Your task to perform on an android device: Add "macbook pro 15 inch" to the cart on target, then select checkout. Image 0: 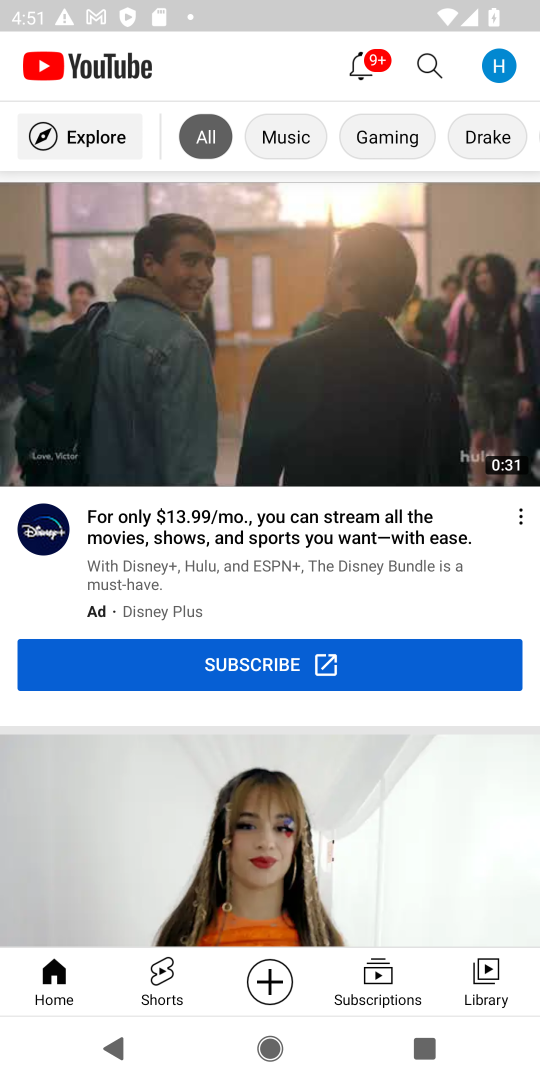
Step 0: press home button
Your task to perform on an android device: Add "macbook pro 15 inch" to the cart on target, then select checkout. Image 1: 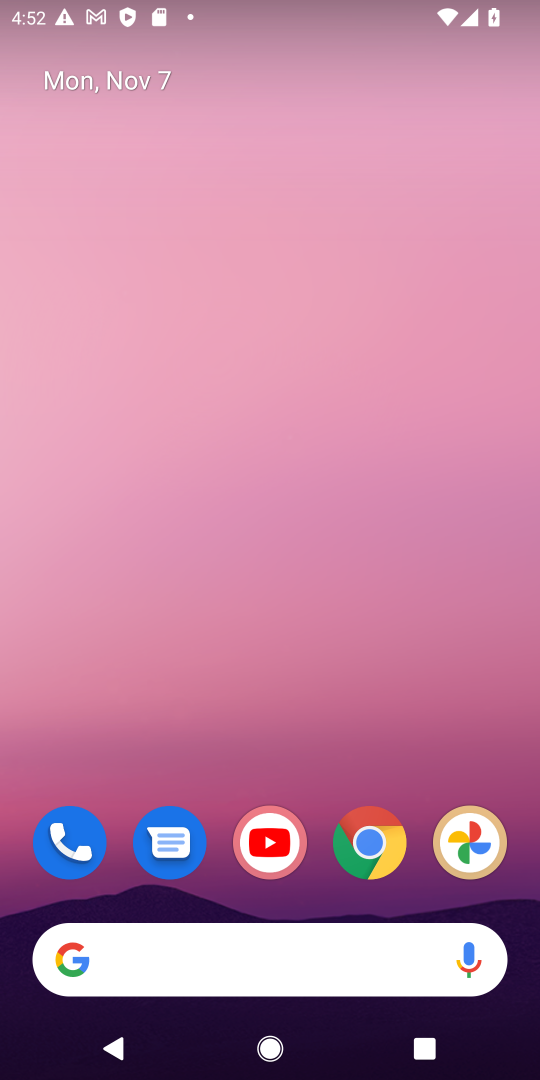
Step 1: drag from (124, 970) to (208, 246)
Your task to perform on an android device: Add "macbook pro 15 inch" to the cart on target, then select checkout. Image 2: 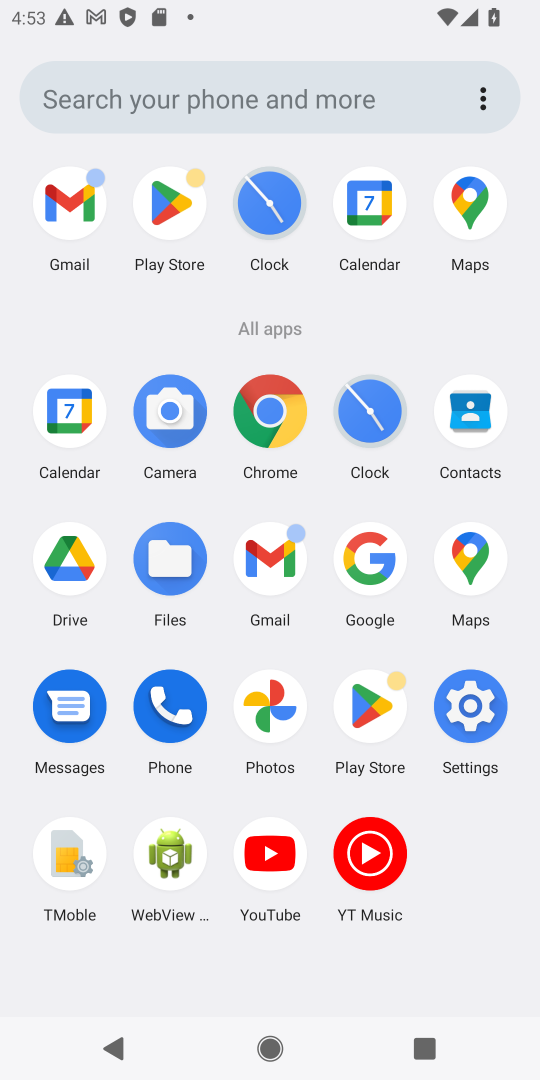
Step 2: click (281, 413)
Your task to perform on an android device: Add "macbook pro 15 inch" to the cart on target, then select checkout. Image 3: 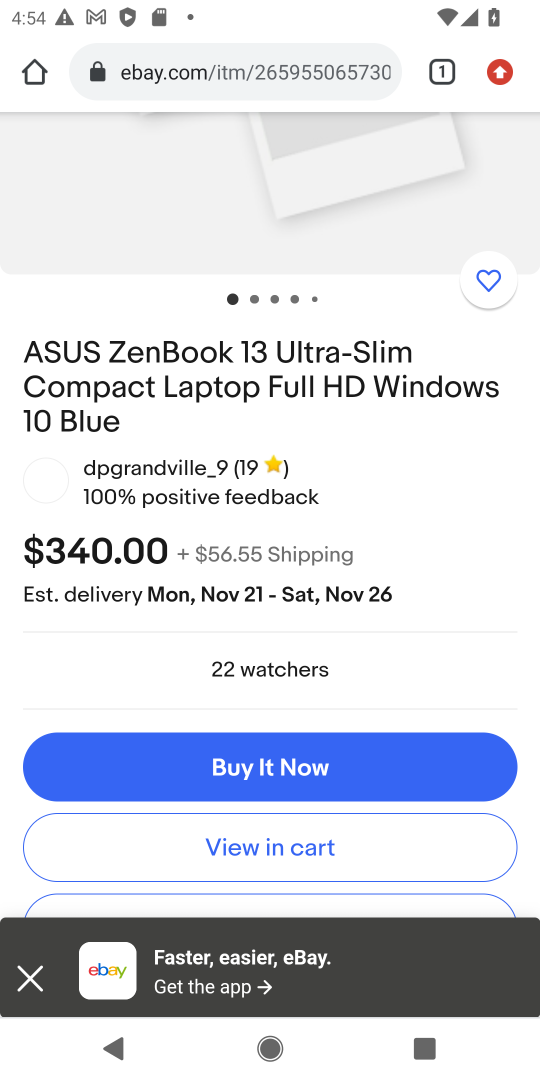
Step 3: click (298, 76)
Your task to perform on an android device: Add "macbook pro 15 inch" to the cart on target, then select checkout. Image 4: 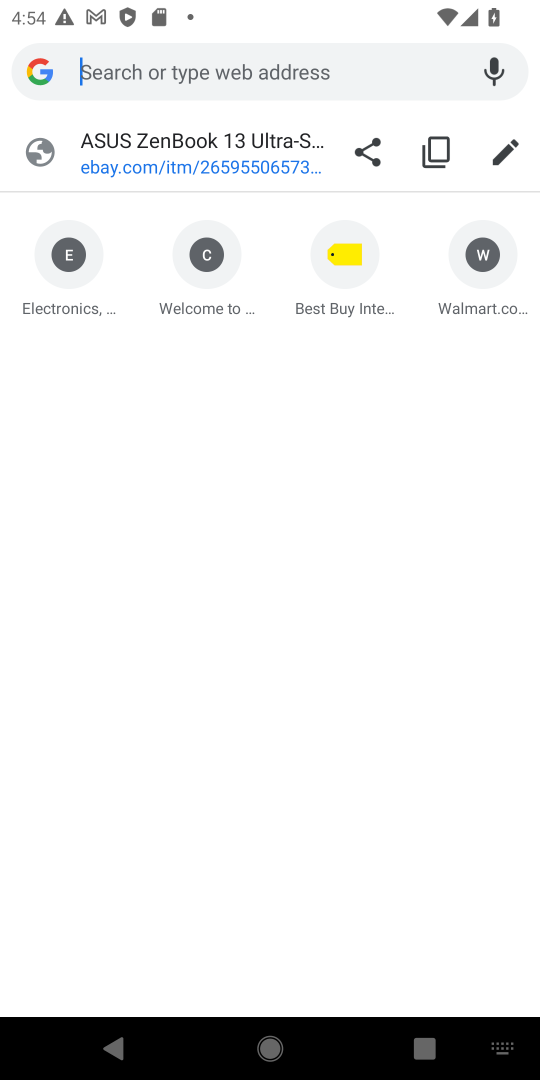
Step 4: type "target"
Your task to perform on an android device: Add "macbook pro 15 inch" to the cart on target, then select checkout. Image 5: 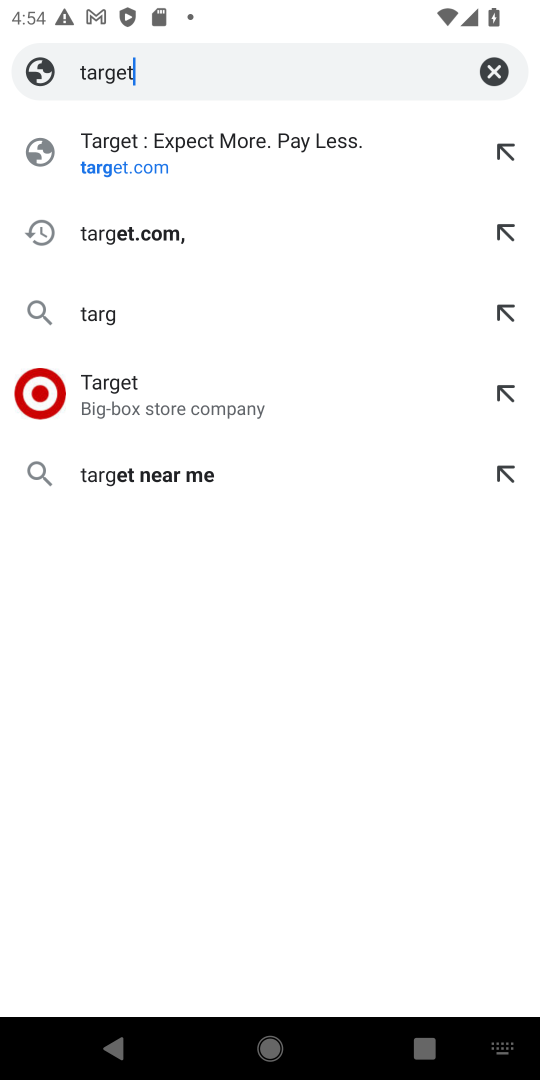
Step 5: press enter
Your task to perform on an android device: Add "macbook pro 15 inch" to the cart on target, then select checkout. Image 6: 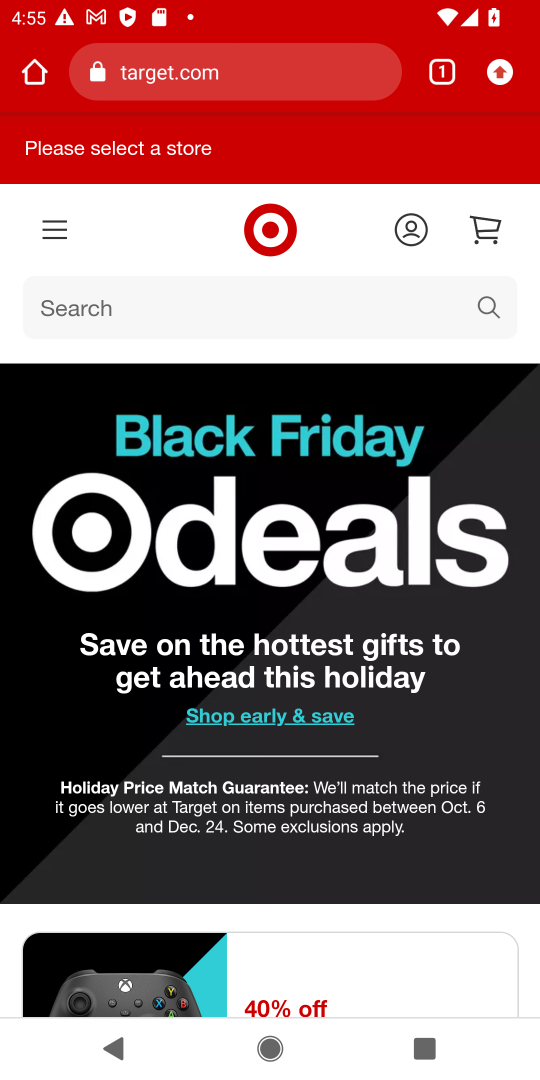
Step 6: click (194, 321)
Your task to perform on an android device: Add "macbook pro 15 inch" to the cart on target, then select checkout. Image 7: 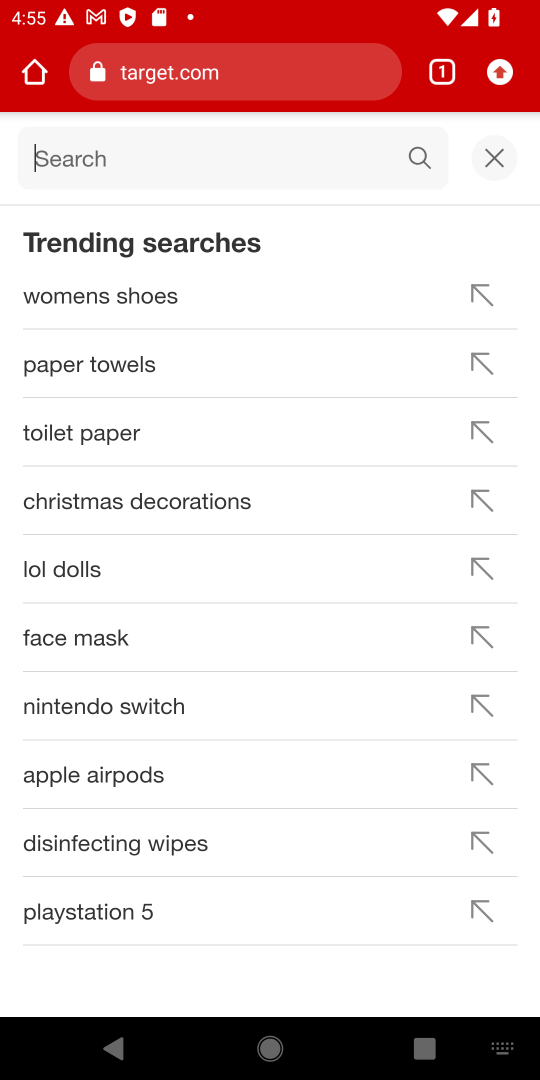
Step 7: type "macbook pro 15 inch"
Your task to perform on an android device: Add "macbook pro 15 inch" to the cart on target, then select checkout. Image 8: 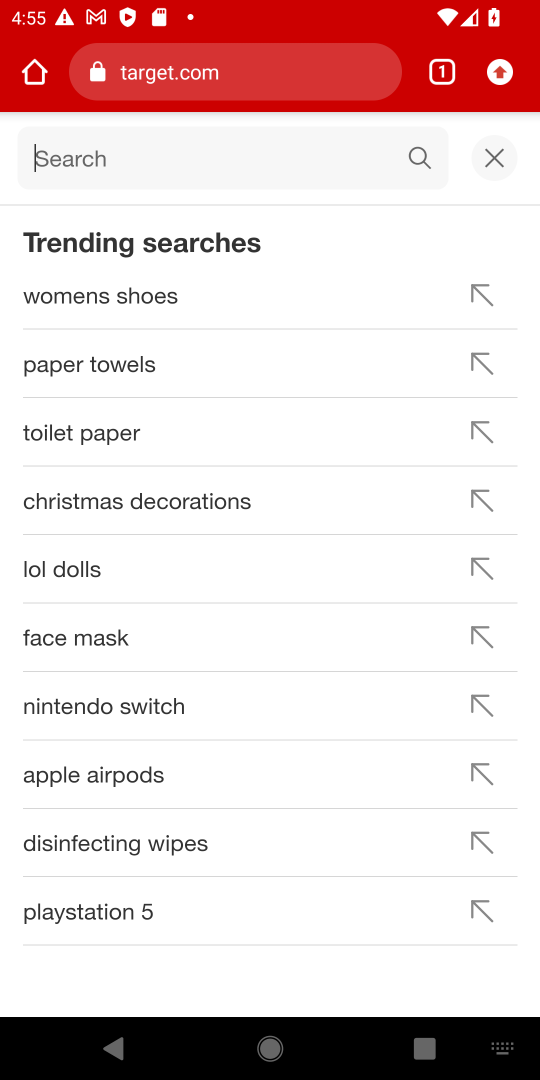
Step 8: press enter
Your task to perform on an android device: Add "macbook pro 15 inch" to the cart on target, then select checkout. Image 9: 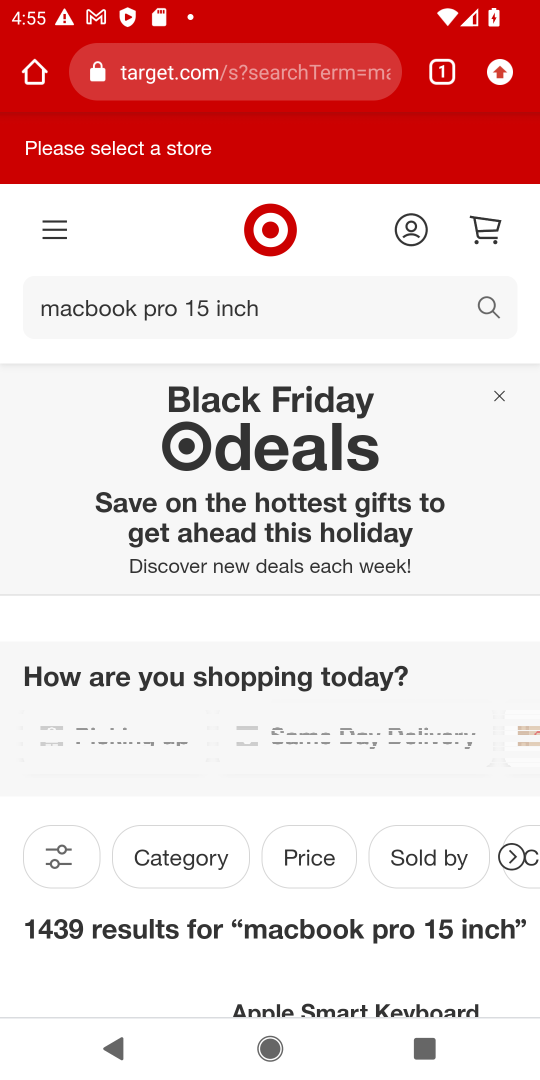
Step 9: drag from (268, 463) to (288, 321)
Your task to perform on an android device: Add "macbook pro 15 inch" to the cart on target, then select checkout. Image 10: 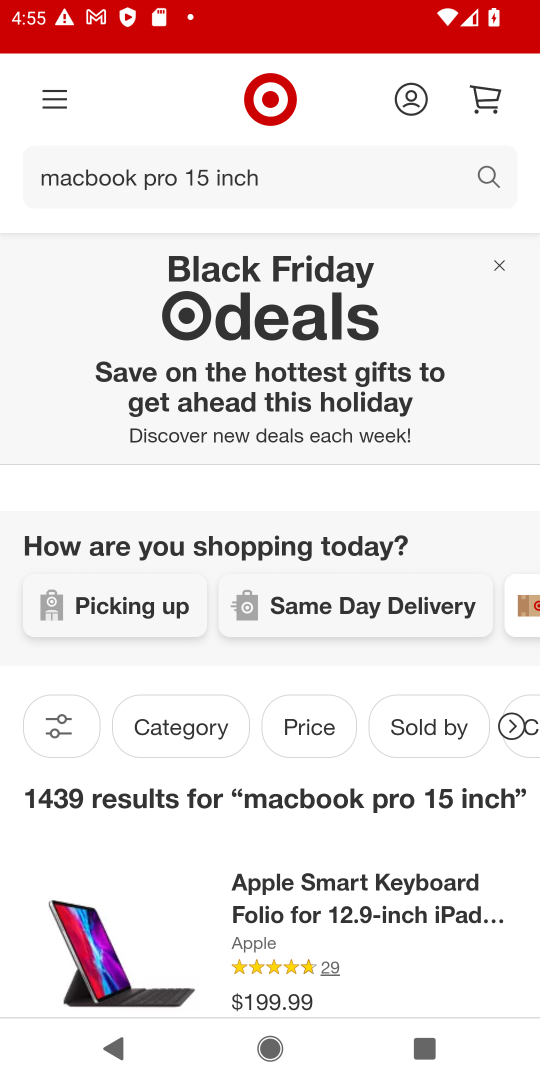
Step 10: drag from (173, 830) to (269, 353)
Your task to perform on an android device: Add "macbook pro 15 inch" to the cart on target, then select checkout. Image 11: 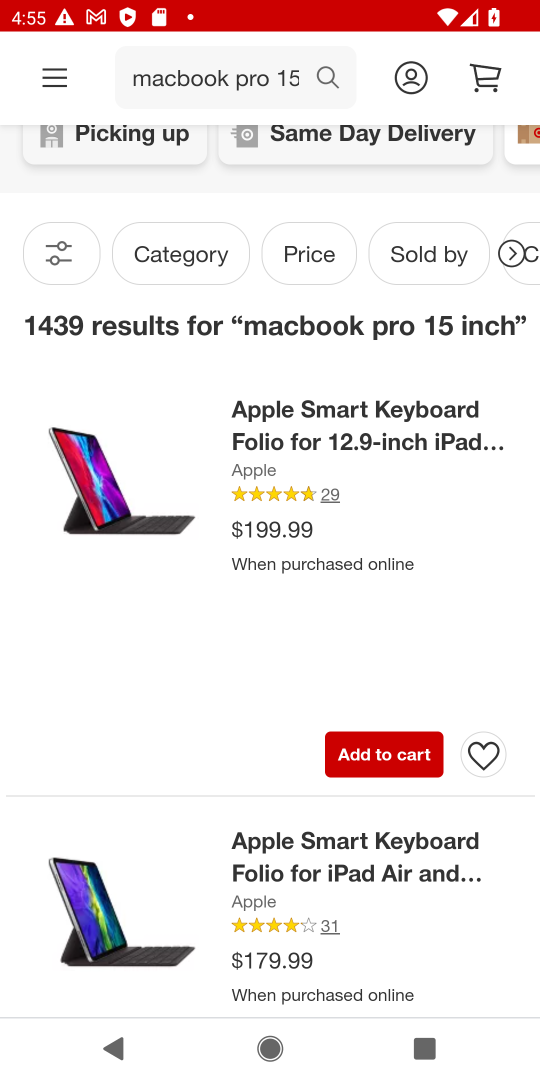
Step 11: drag from (216, 874) to (252, 359)
Your task to perform on an android device: Add "macbook pro 15 inch" to the cart on target, then select checkout. Image 12: 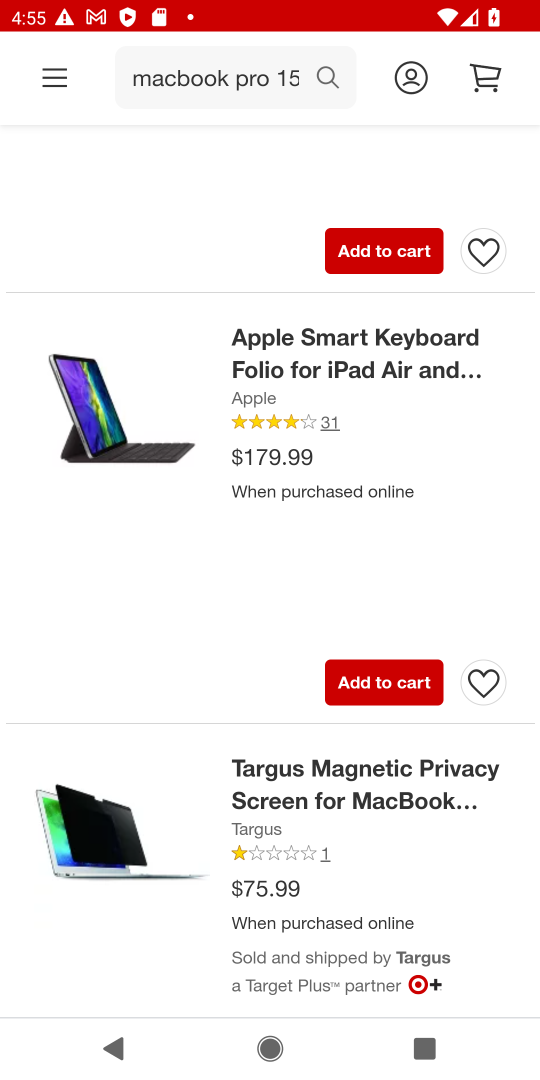
Step 12: click (382, 249)
Your task to perform on an android device: Add "macbook pro 15 inch" to the cart on target, then select checkout. Image 13: 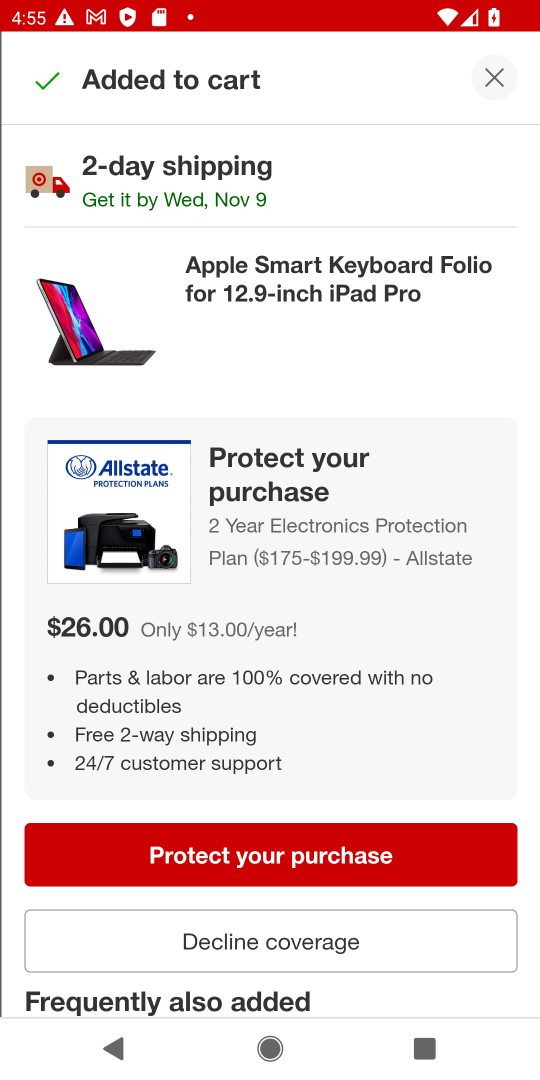
Step 13: drag from (400, 846) to (484, 335)
Your task to perform on an android device: Add "macbook pro 15 inch" to the cart on target, then select checkout. Image 14: 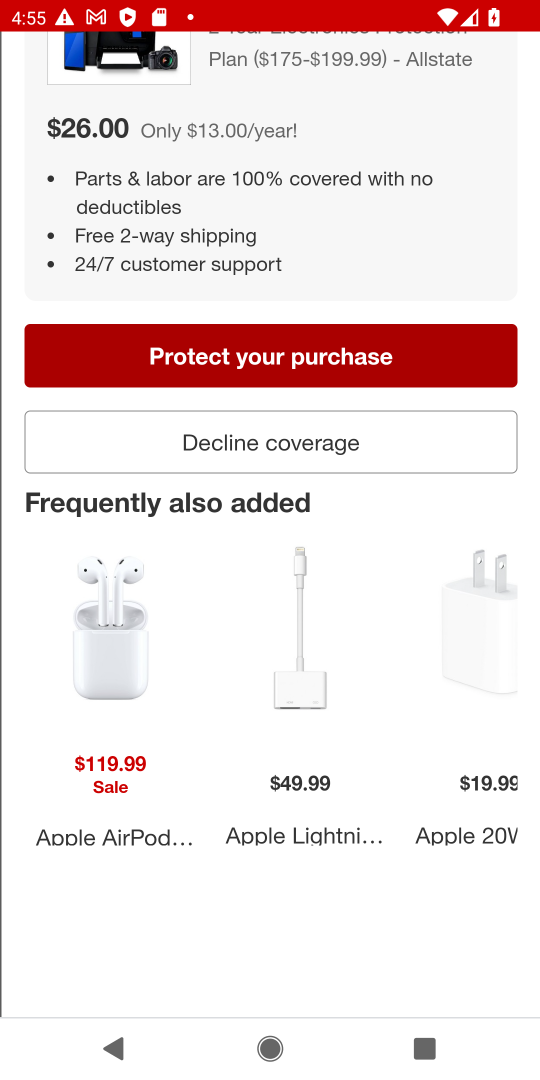
Step 14: drag from (343, 812) to (486, 262)
Your task to perform on an android device: Add "macbook pro 15 inch" to the cart on target, then select checkout. Image 15: 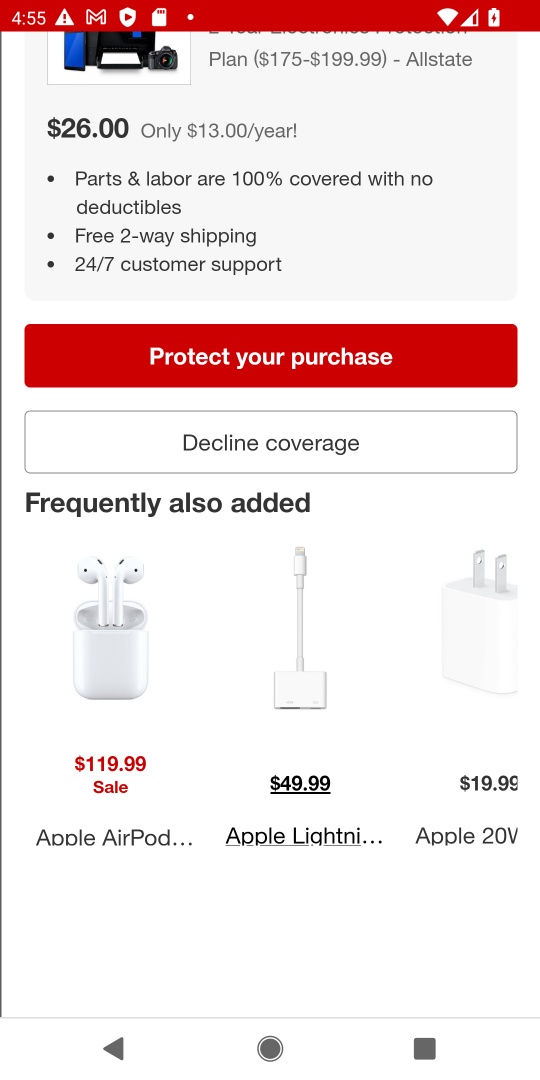
Step 15: drag from (256, 946) to (256, 393)
Your task to perform on an android device: Add "macbook pro 15 inch" to the cart on target, then select checkout. Image 16: 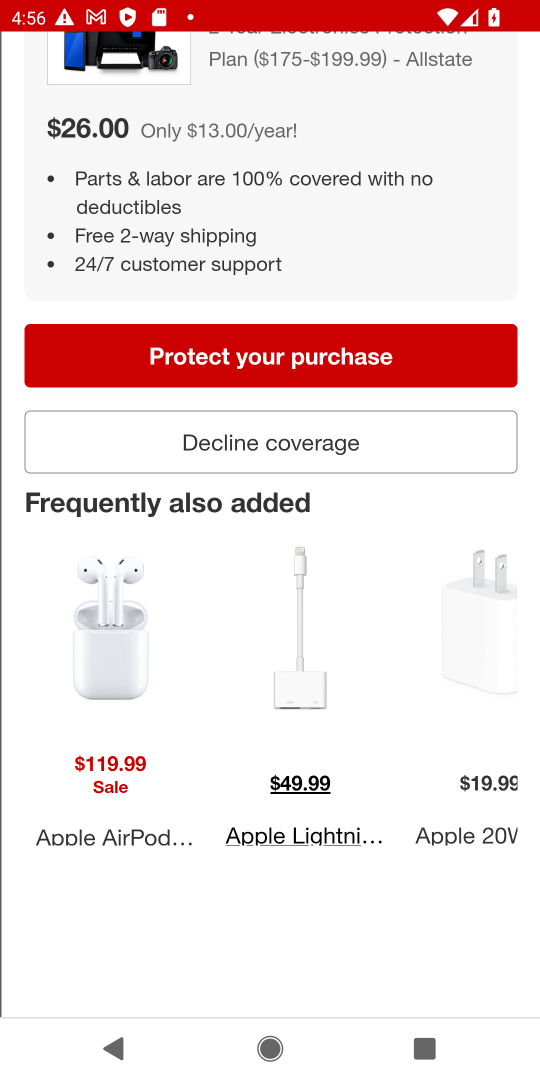
Step 16: drag from (348, 583) to (383, 351)
Your task to perform on an android device: Add "macbook pro 15 inch" to the cart on target, then select checkout. Image 17: 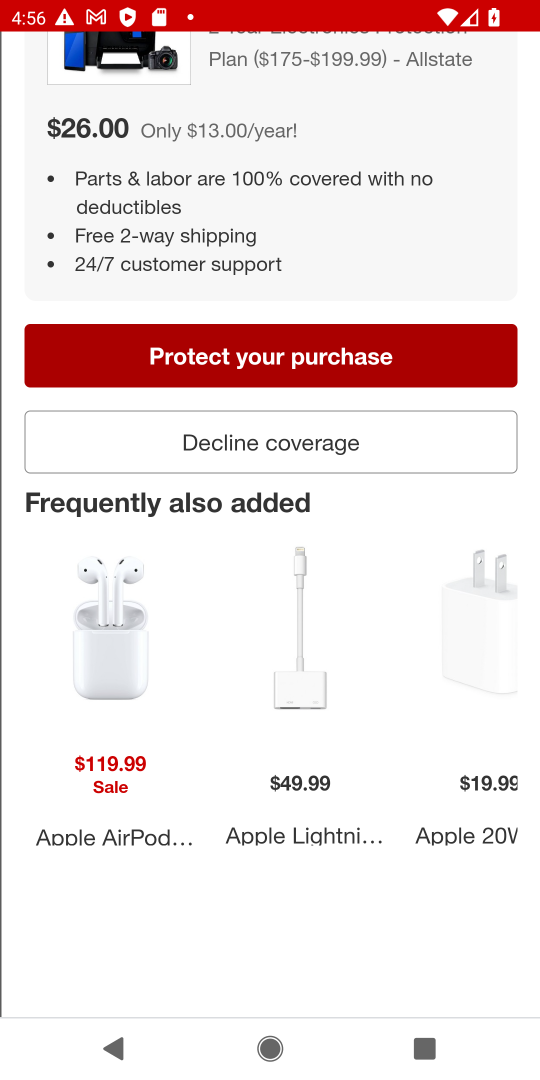
Step 17: drag from (302, 649) to (369, 236)
Your task to perform on an android device: Add "macbook pro 15 inch" to the cart on target, then select checkout. Image 18: 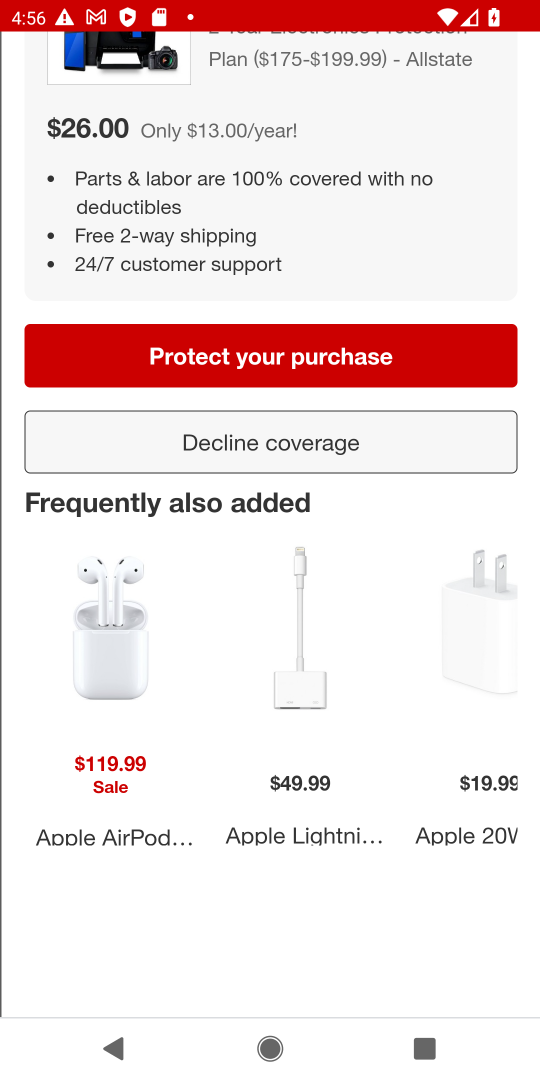
Step 18: drag from (423, 171) to (325, 722)
Your task to perform on an android device: Add "macbook pro 15 inch" to the cart on target, then select checkout. Image 19: 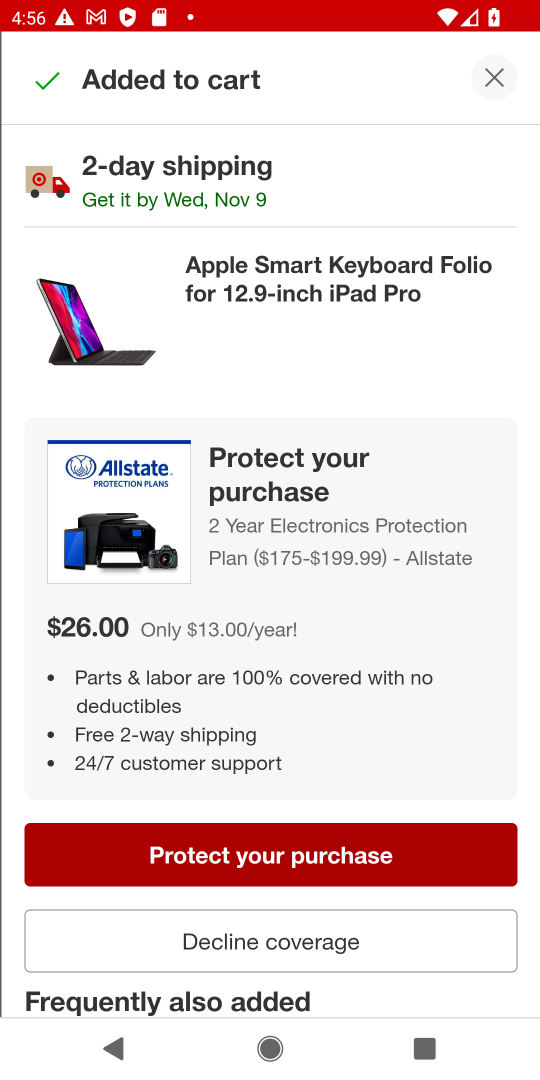
Step 19: drag from (396, 397) to (334, 782)
Your task to perform on an android device: Add "macbook pro 15 inch" to the cart on target, then select checkout. Image 20: 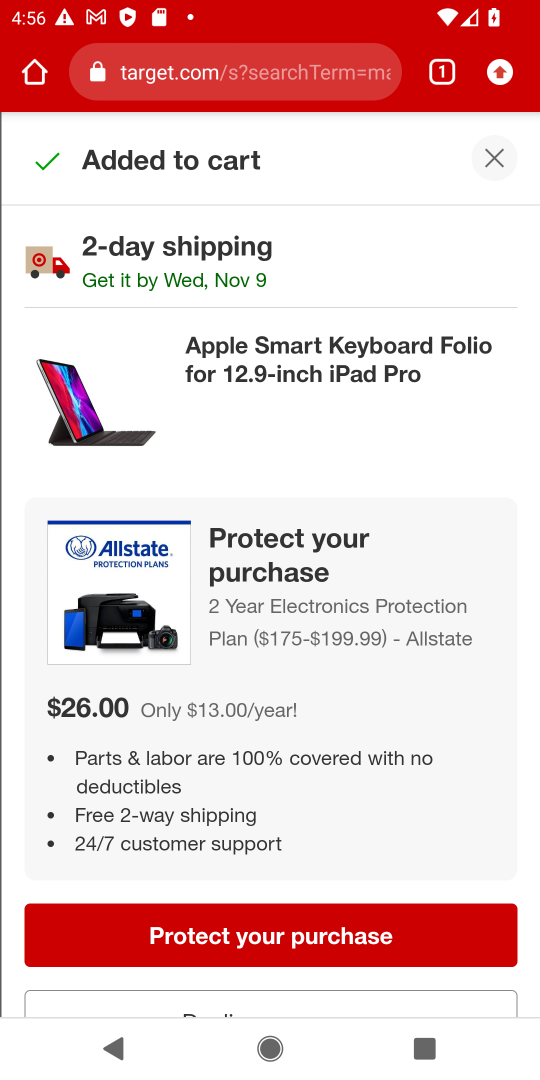
Step 20: drag from (393, 480) to (326, 841)
Your task to perform on an android device: Add "macbook pro 15 inch" to the cart on target, then select checkout. Image 21: 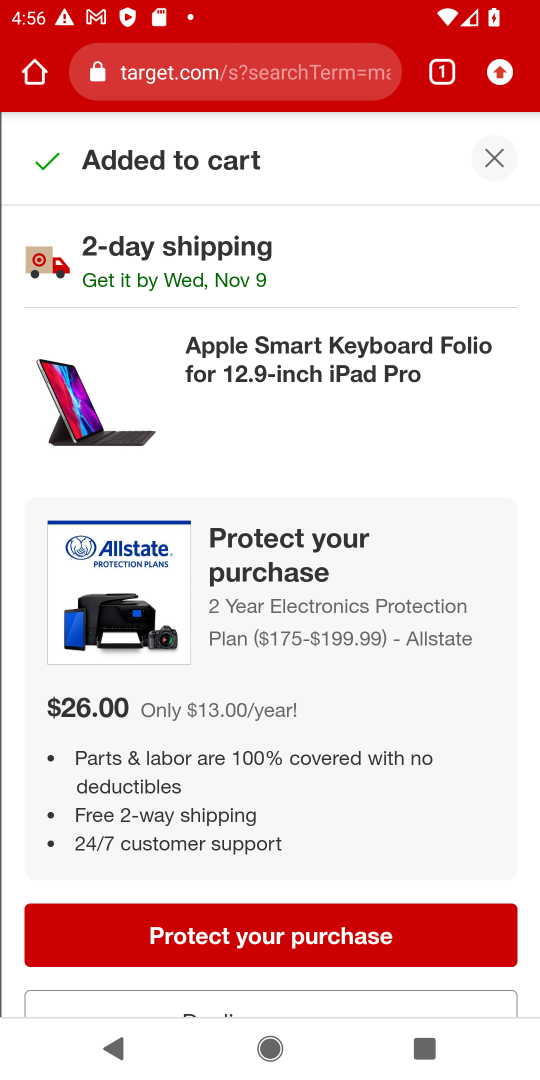
Step 21: click (119, 395)
Your task to perform on an android device: Add "macbook pro 15 inch" to the cart on target, then select checkout. Image 22: 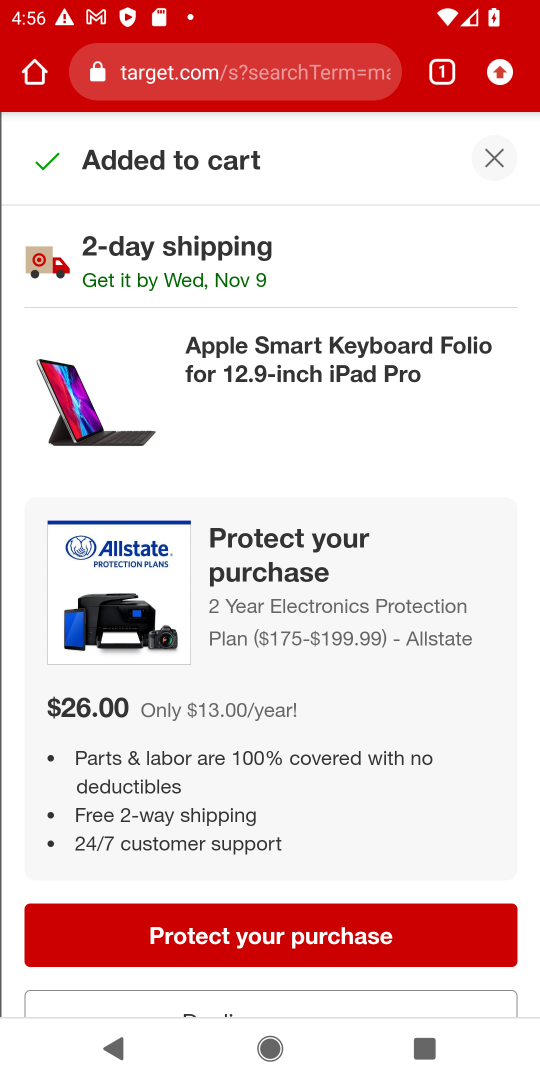
Step 22: task complete